Your task to perform on an android device: Go to sound settings Image 0: 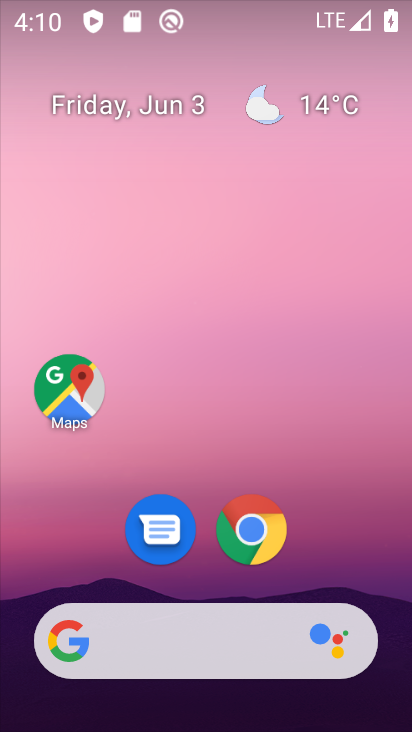
Step 0: press home button
Your task to perform on an android device: Go to sound settings Image 1: 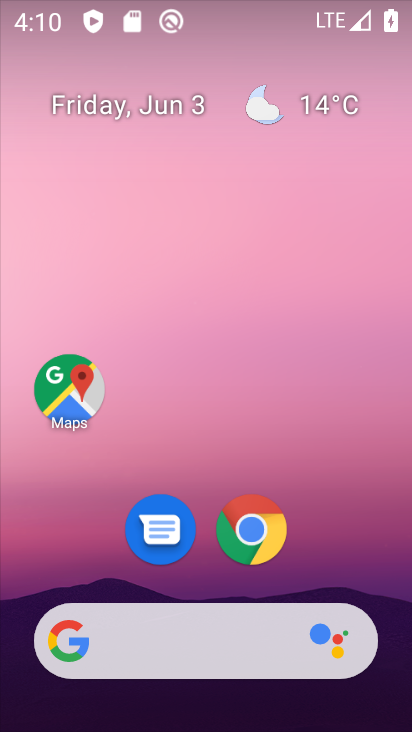
Step 1: press home button
Your task to perform on an android device: Go to sound settings Image 2: 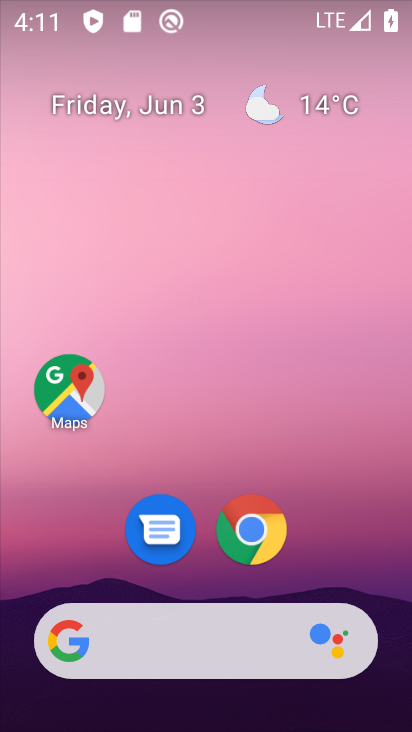
Step 2: drag from (206, 582) to (233, 63)
Your task to perform on an android device: Go to sound settings Image 3: 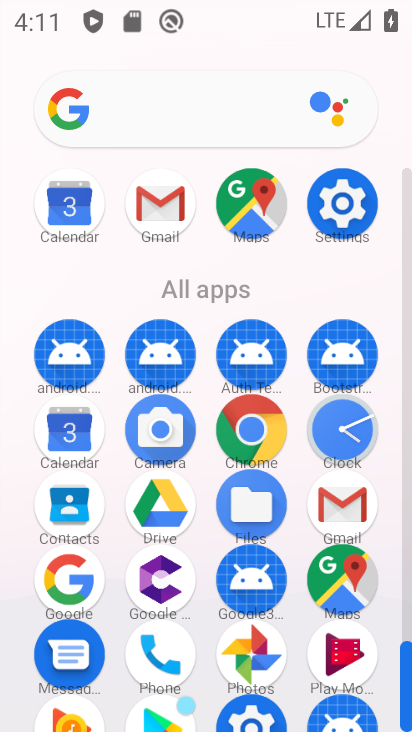
Step 3: click (336, 194)
Your task to perform on an android device: Go to sound settings Image 4: 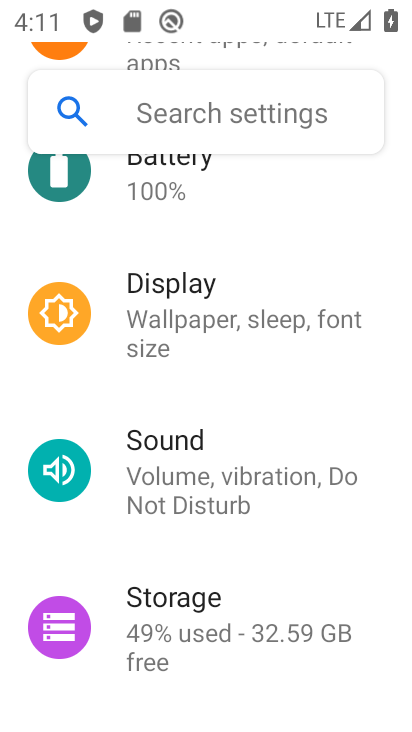
Step 4: click (231, 436)
Your task to perform on an android device: Go to sound settings Image 5: 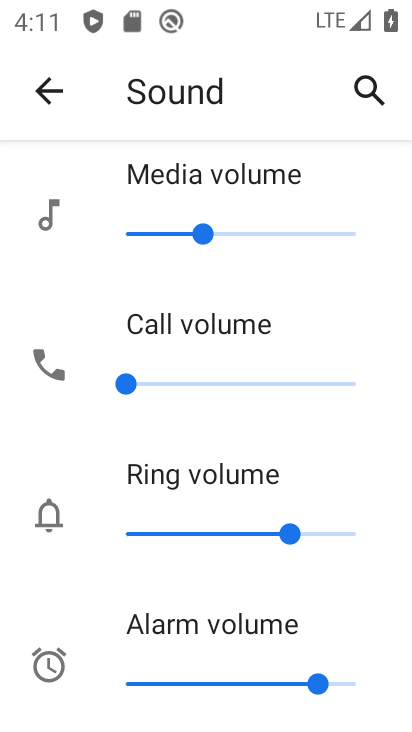
Step 5: drag from (203, 647) to (202, 168)
Your task to perform on an android device: Go to sound settings Image 6: 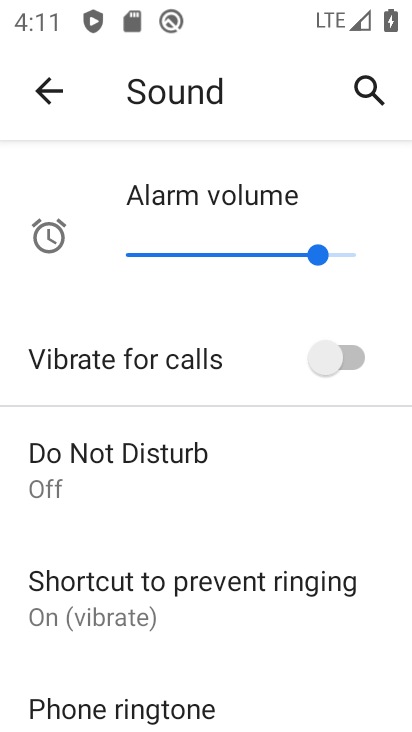
Step 6: drag from (155, 658) to (179, 159)
Your task to perform on an android device: Go to sound settings Image 7: 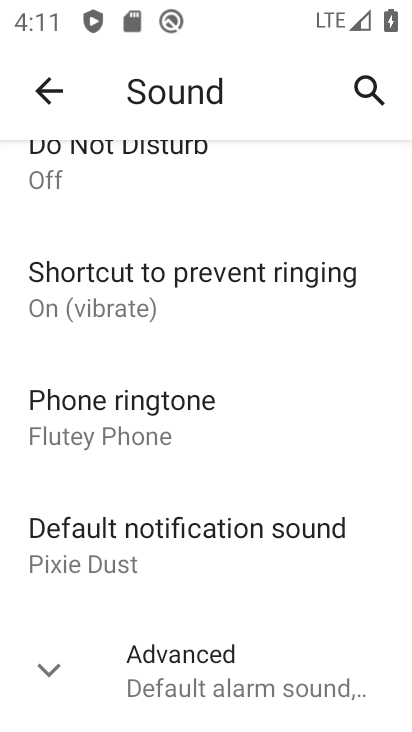
Step 7: click (44, 661)
Your task to perform on an android device: Go to sound settings Image 8: 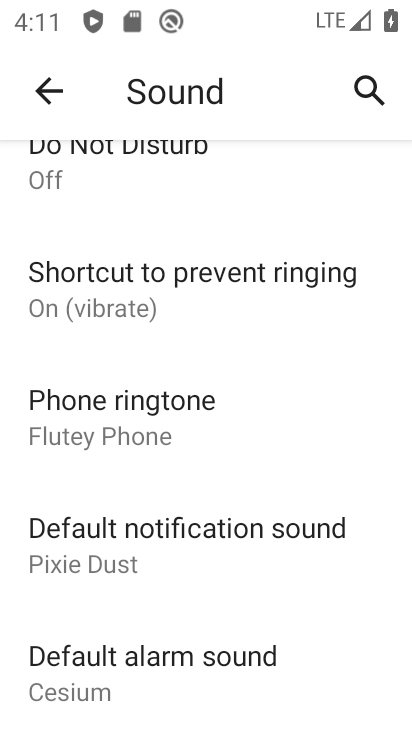
Step 8: drag from (177, 702) to (204, 135)
Your task to perform on an android device: Go to sound settings Image 9: 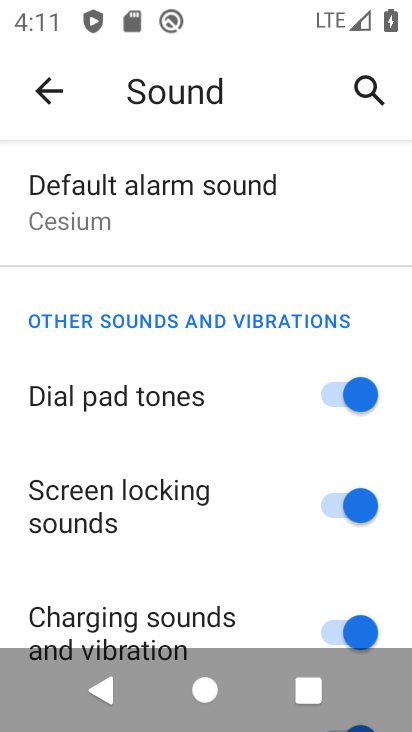
Step 9: click (235, 601)
Your task to perform on an android device: Go to sound settings Image 10: 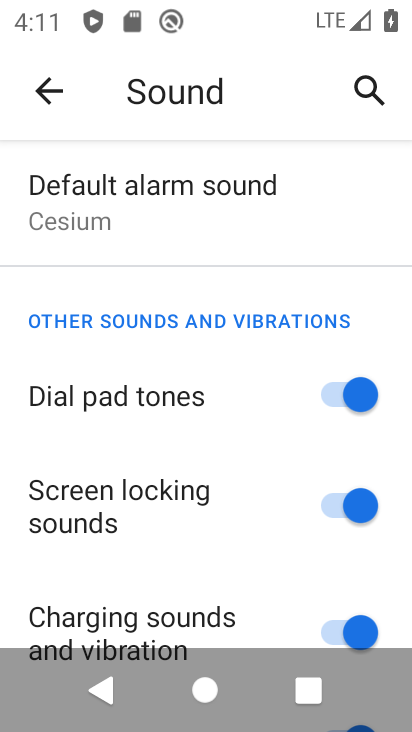
Step 10: drag from (230, 471) to (226, 63)
Your task to perform on an android device: Go to sound settings Image 11: 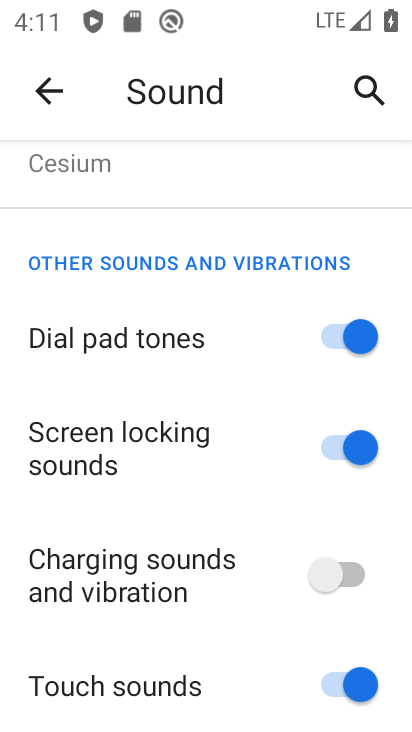
Step 11: click (340, 571)
Your task to perform on an android device: Go to sound settings Image 12: 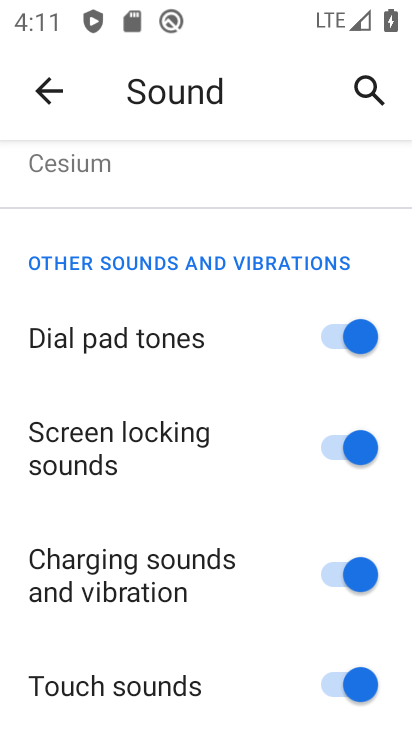
Step 12: task complete